Your task to perform on an android device: open chrome privacy settings Image 0: 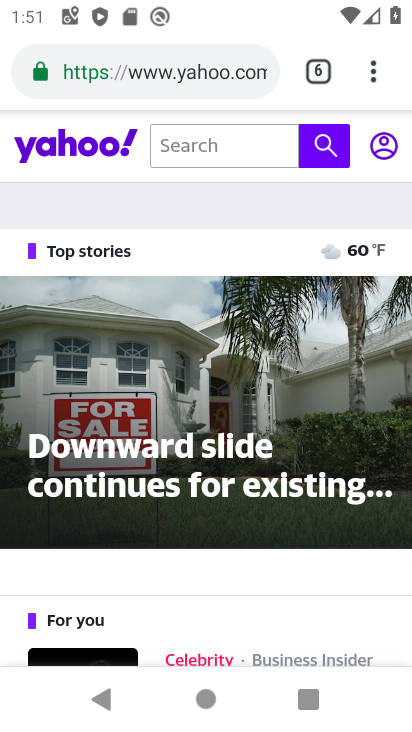
Step 0: press home button
Your task to perform on an android device: open chrome privacy settings Image 1: 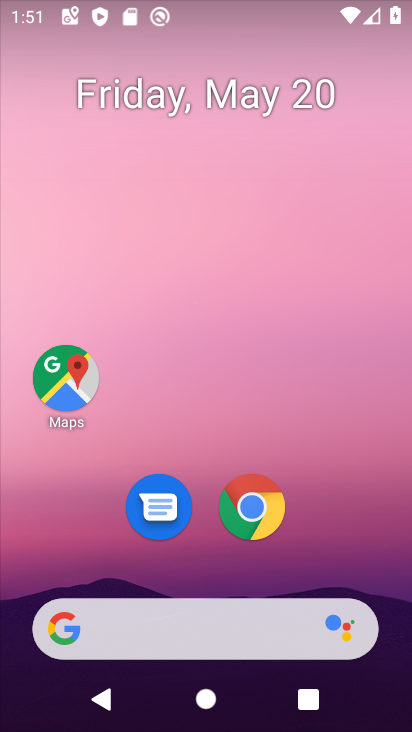
Step 1: click (251, 509)
Your task to perform on an android device: open chrome privacy settings Image 2: 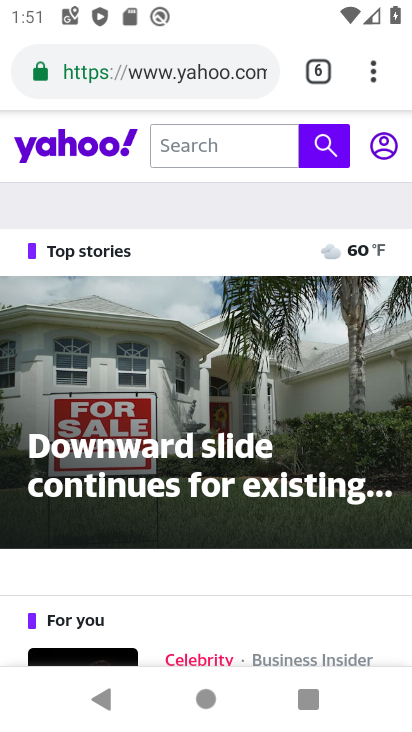
Step 2: click (373, 81)
Your task to perform on an android device: open chrome privacy settings Image 3: 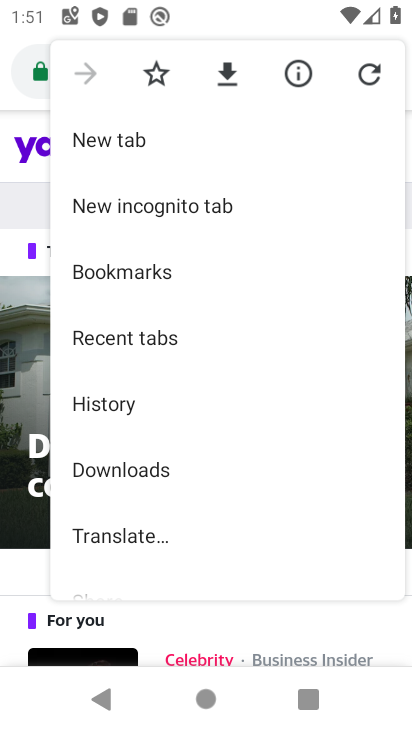
Step 3: drag from (131, 548) to (156, 138)
Your task to perform on an android device: open chrome privacy settings Image 4: 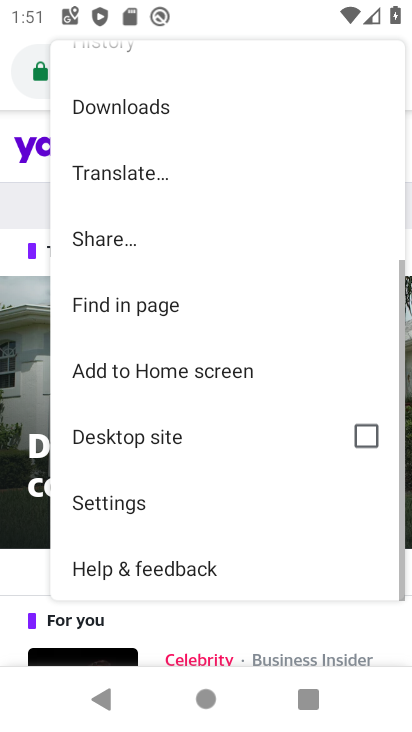
Step 4: click (92, 504)
Your task to perform on an android device: open chrome privacy settings Image 5: 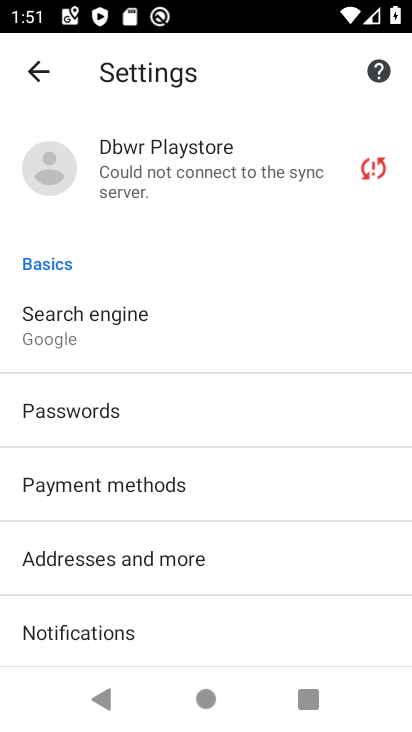
Step 5: drag from (105, 613) to (119, 236)
Your task to perform on an android device: open chrome privacy settings Image 6: 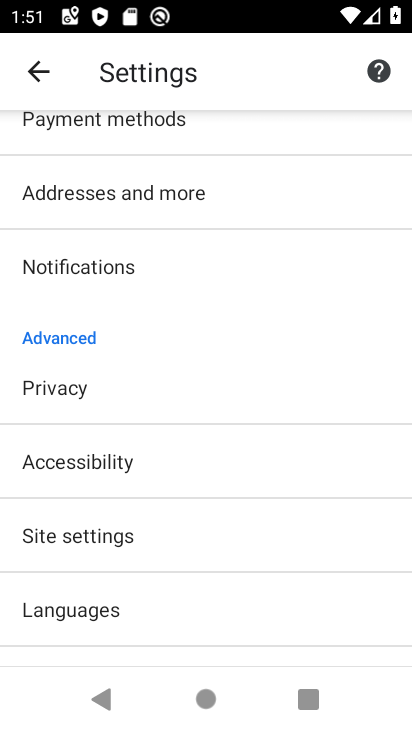
Step 6: click (53, 386)
Your task to perform on an android device: open chrome privacy settings Image 7: 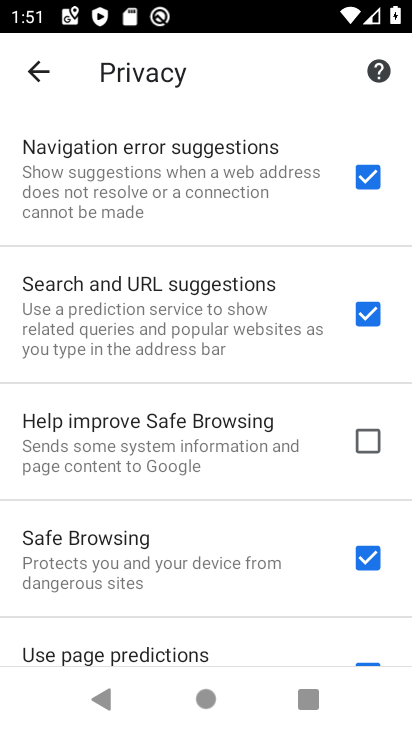
Step 7: task complete